Your task to perform on an android device: see tabs open on other devices in the chrome app Image 0: 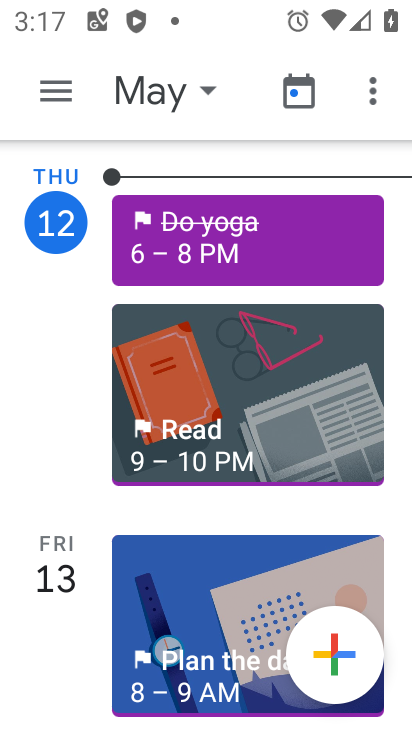
Step 0: press home button
Your task to perform on an android device: see tabs open on other devices in the chrome app Image 1: 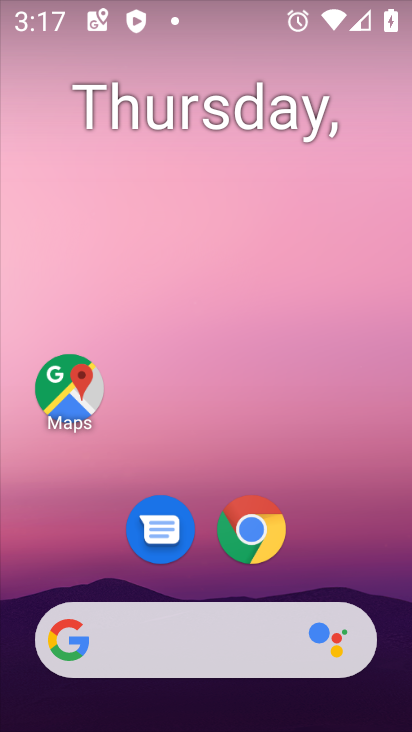
Step 1: click (249, 529)
Your task to perform on an android device: see tabs open on other devices in the chrome app Image 2: 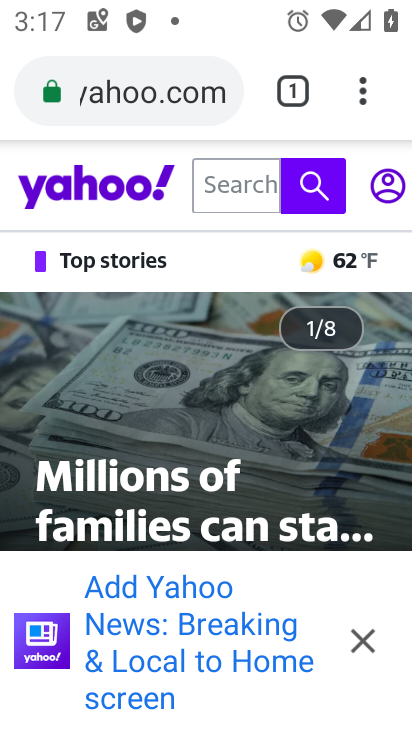
Step 2: click (361, 91)
Your task to perform on an android device: see tabs open on other devices in the chrome app Image 3: 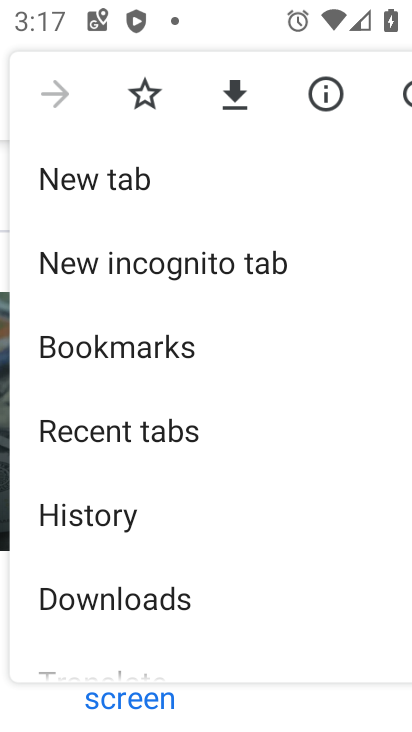
Step 3: drag from (181, 474) to (226, 355)
Your task to perform on an android device: see tabs open on other devices in the chrome app Image 4: 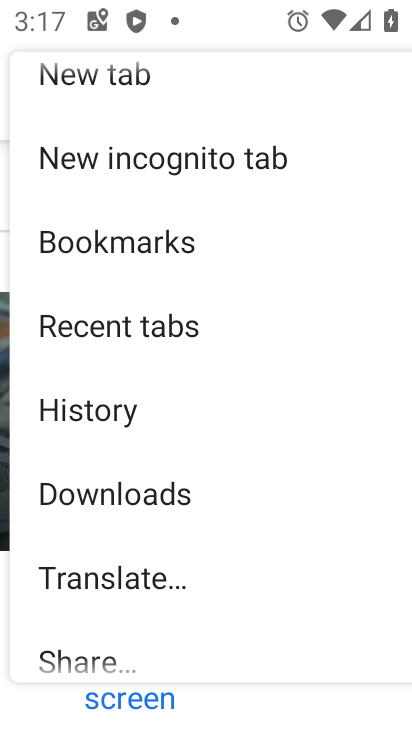
Step 4: drag from (229, 493) to (236, 365)
Your task to perform on an android device: see tabs open on other devices in the chrome app Image 5: 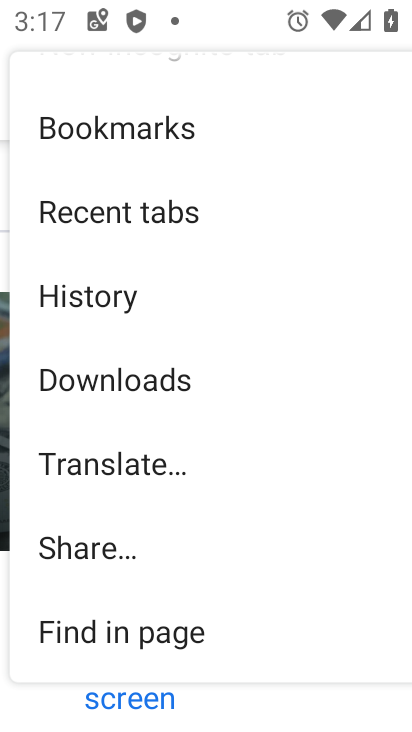
Step 5: click (162, 216)
Your task to perform on an android device: see tabs open on other devices in the chrome app Image 6: 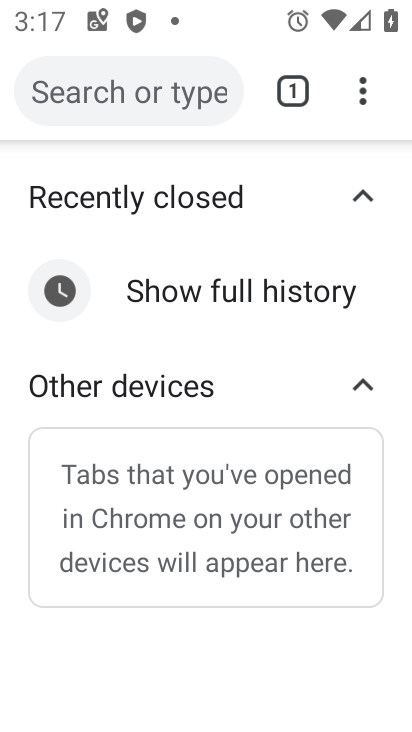
Step 6: task complete